Your task to perform on an android device: toggle notifications settings in the gmail app Image 0: 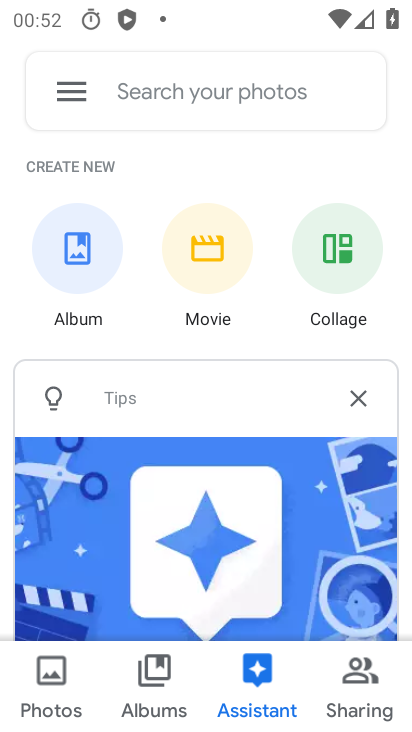
Step 0: press home button
Your task to perform on an android device: toggle notifications settings in the gmail app Image 1: 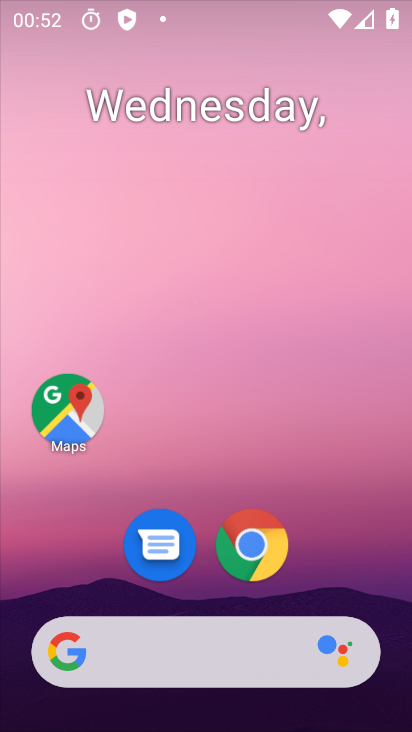
Step 1: drag from (336, 488) to (316, 110)
Your task to perform on an android device: toggle notifications settings in the gmail app Image 2: 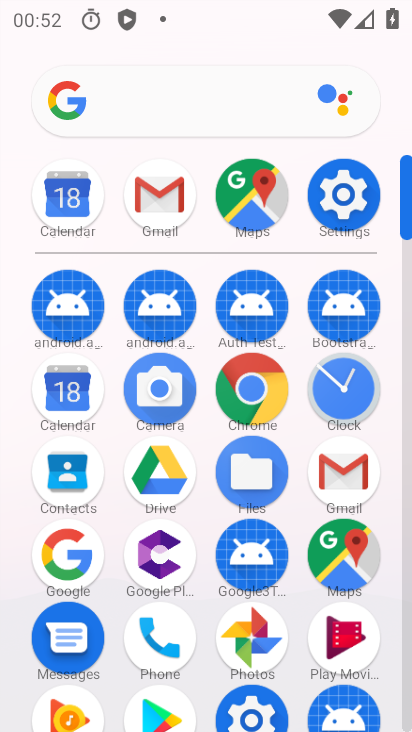
Step 2: click (182, 201)
Your task to perform on an android device: toggle notifications settings in the gmail app Image 3: 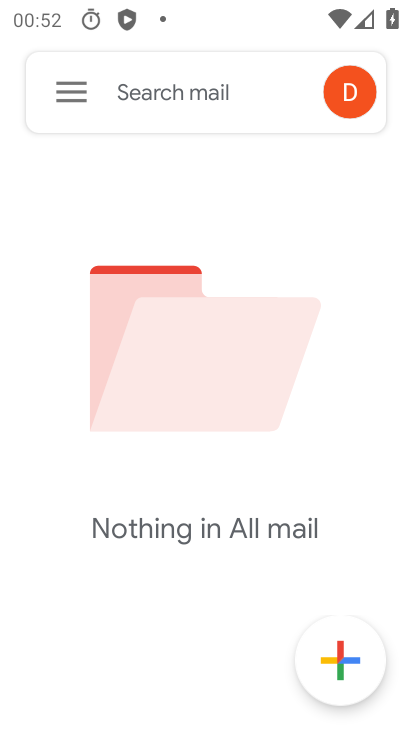
Step 3: click (63, 96)
Your task to perform on an android device: toggle notifications settings in the gmail app Image 4: 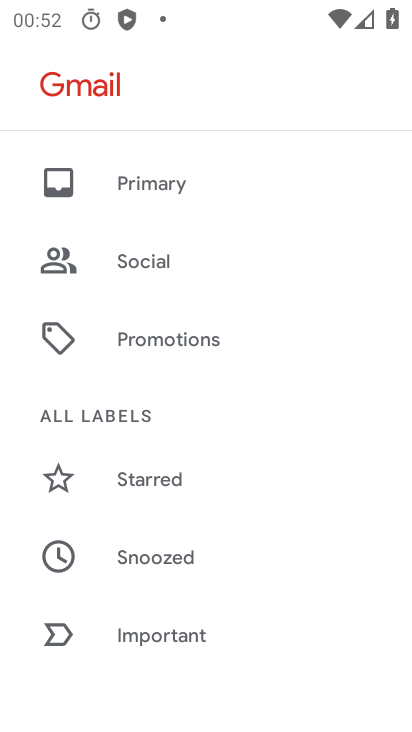
Step 4: drag from (177, 524) to (237, 153)
Your task to perform on an android device: toggle notifications settings in the gmail app Image 5: 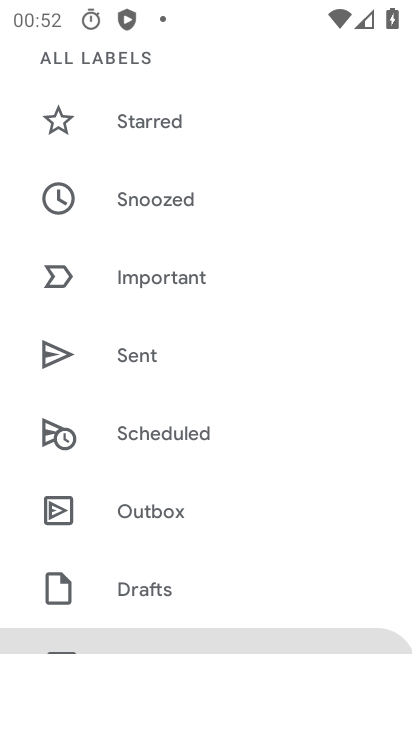
Step 5: drag from (185, 542) to (235, 158)
Your task to perform on an android device: toggle notifications settings in the gmail app Image 6: 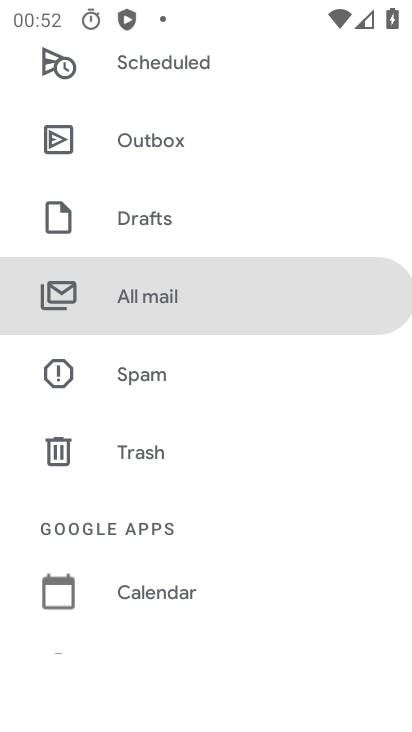
Step 6: drag from (179, 613) to (248, 266)
Your task to perform on an android device: toggle notifications settings in the gmail app Image 7: 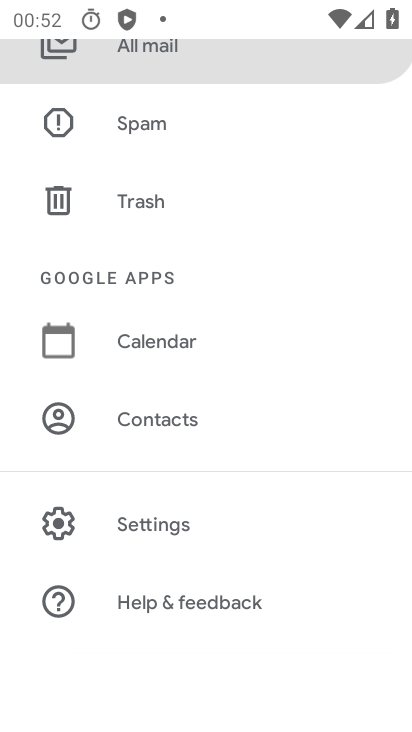
Step 7: click (168, 533)
Your task to perform on an android device: toggle notifications settings in the gmail app Image 8: 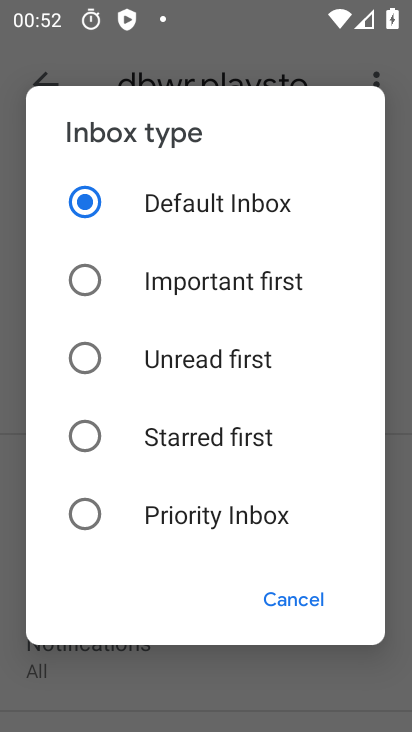
Step 8: click (291, 598)
Your task to perform on an android device: toggle notifications settings in the gmail app Image 9: 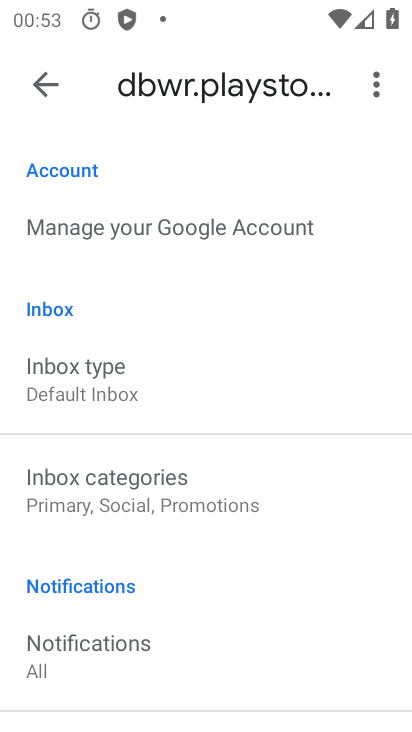
Step 9: drag from (251, 420) to (298, 83)
Your task to perform on an android device: toggle notifications settings in the gmail app Image 10: 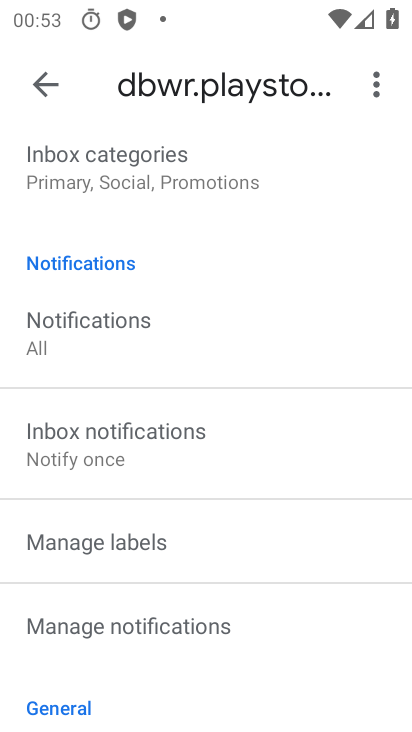
Step 10: click (152, 628)
Your task to perform on an android device: toggle notifications settings in the gmail app Image 11: 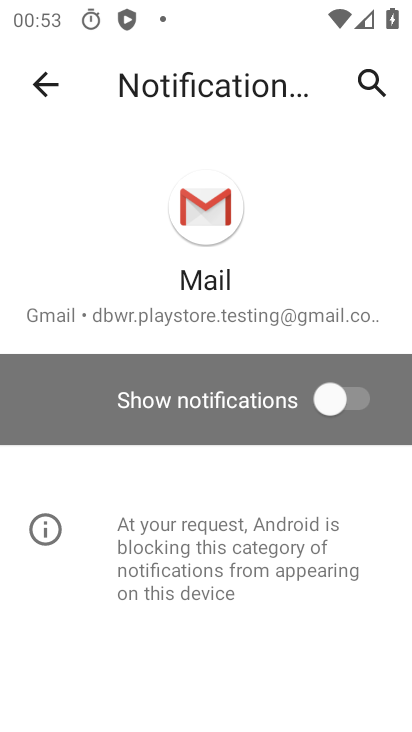
Step 11: click (323, 413)
Your task to perform on an android device: toggle notifications settings in the gmail app Image 12: 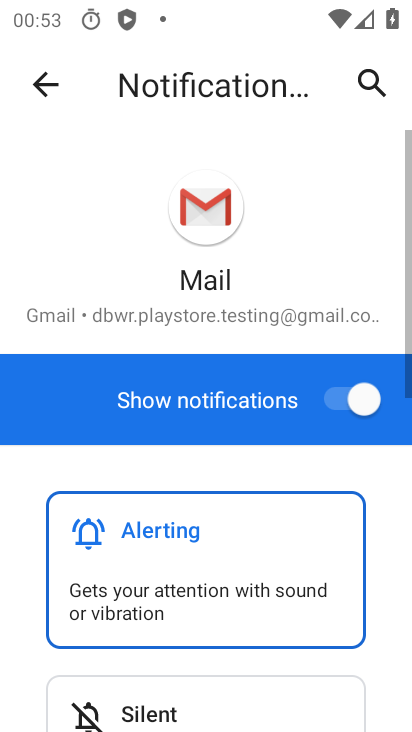
Step 12: task complete